Your task to perform on an android device: delete a single message in the gmail app Image 0: 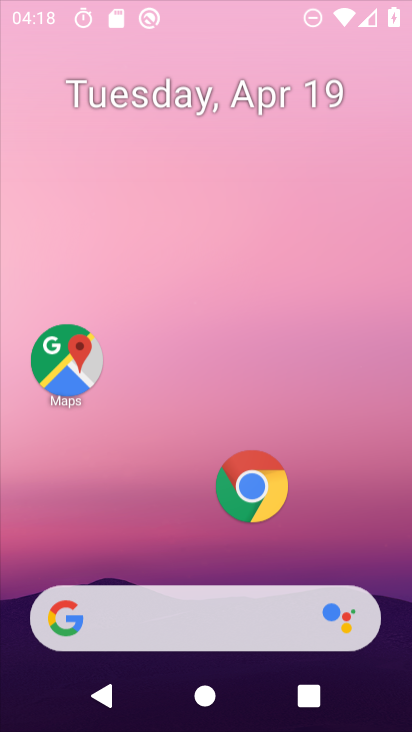
Step 0: drag from (253, 225) to (265, 104)
Your task to perform on an android device: delete a single message in the gmail app Image 1: 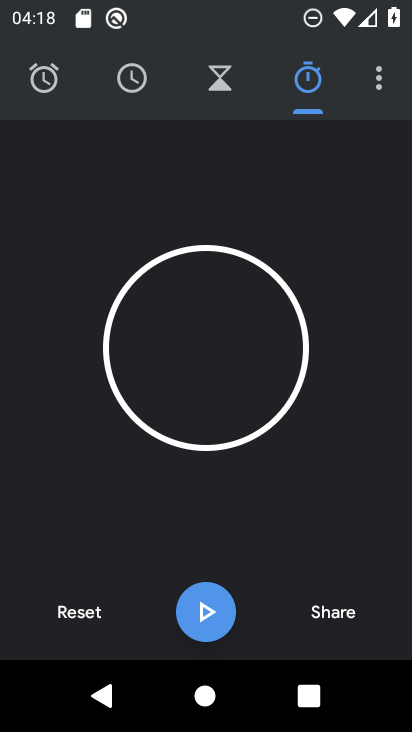
Step 1: press home button
Your task to perform on an android device: delete a single message in the gmail app Image 2: 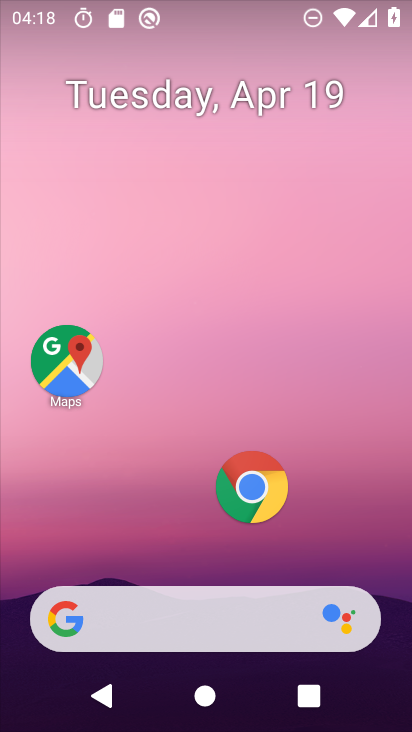
Step 2: drag from (116, 510) to (251, 13)
Your task to perform on an android device: delete a single message in the gmail app Image 3: 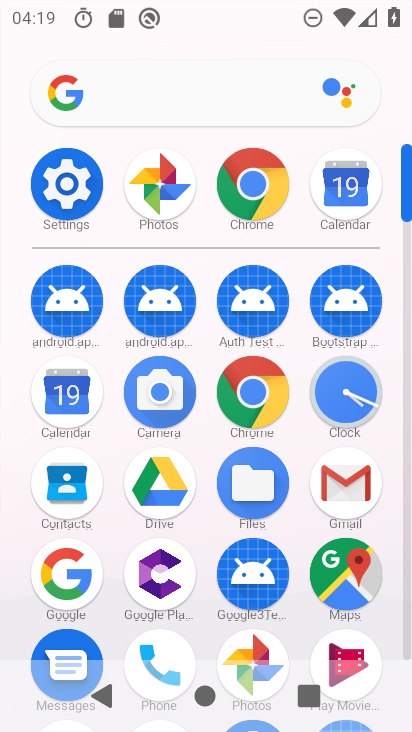
Step 3: click (346, 480)
Your task to perform on an android device: delete a single message in the gmail app Image 4: 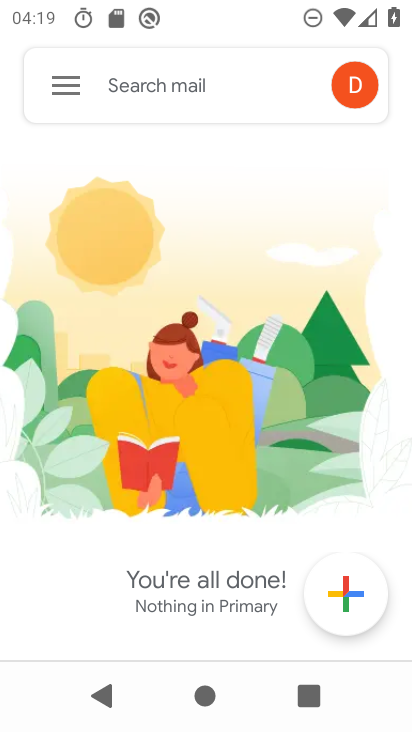
Step 4: click (63, 88)
Your task to perform on an android device: delete a single message in the gmail app Image 5: 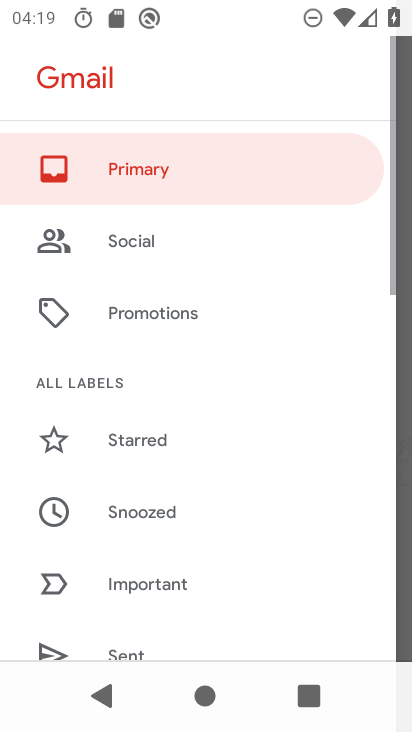
Step 5: drag from (150, 572) to (226, 64)
Your task to perform on an android device: delete a single message in the gmail app Image 6: 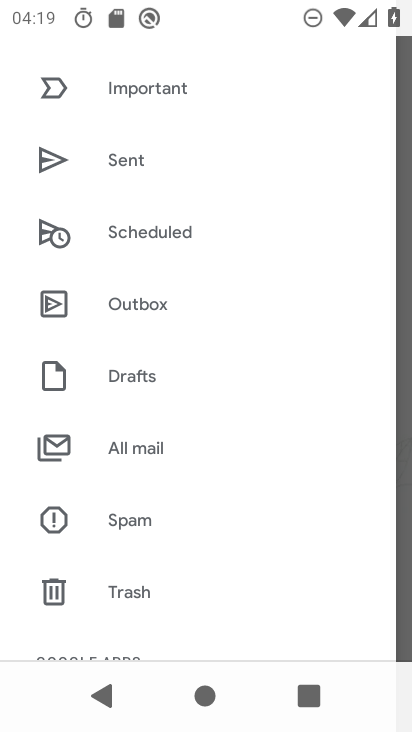
Step 6: click (156, 436)
Your task to perform on an android device: delete a single message in the gmail app Image 7: 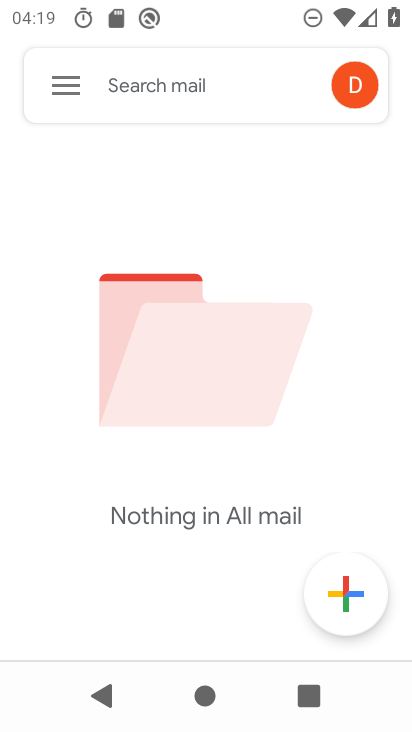
Step 7: task complete